Your task to perform on an android device: Open Yahoo.com Image 0: 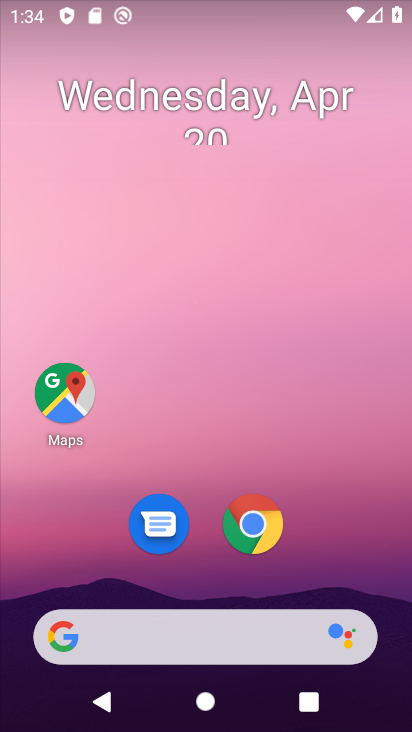
Step 0: click (251, 628)
Your task to perform on an android device: Open Yahoo.com Image 1: 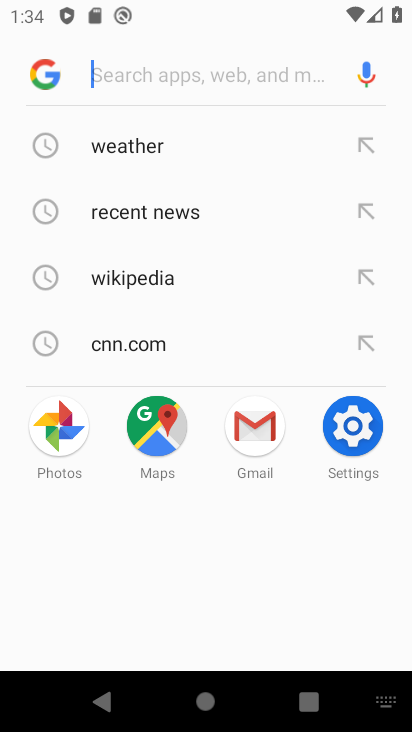
Step 1: type "yahoo.com"
Your task to perform on an android device: Open Yahoo.com Image 2: 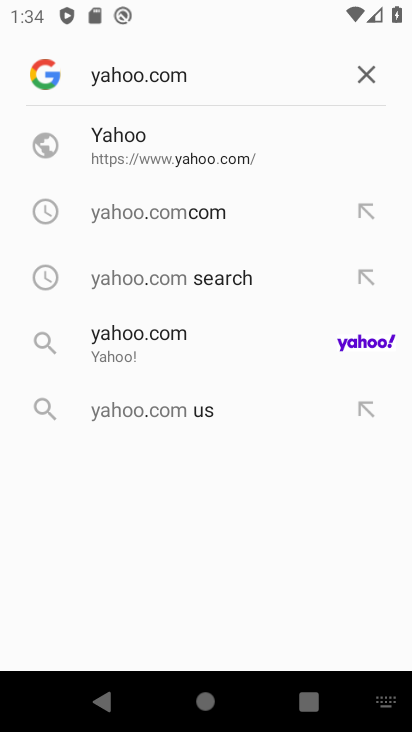
Step 2: click (213, 152)
Your task to perform on an android device: Open Yahoo.com Image 3: 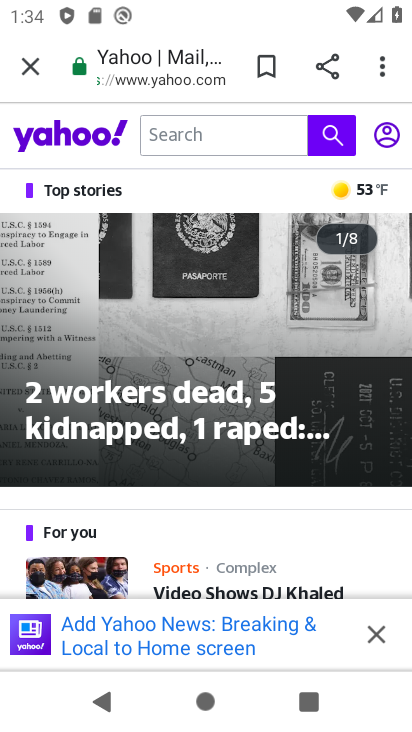
Step 3: task complete